Your task to perform on an android device: turn off notifications in google photos Image 0: 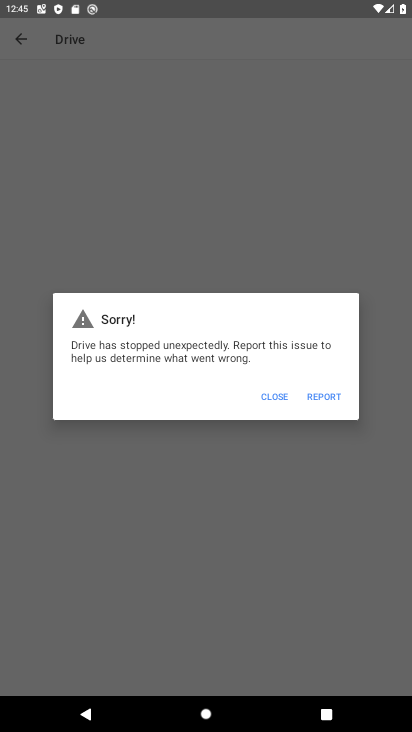
Step 0: press home button
Your task to perform on an android device: turn off notifications in google photos Image 1: 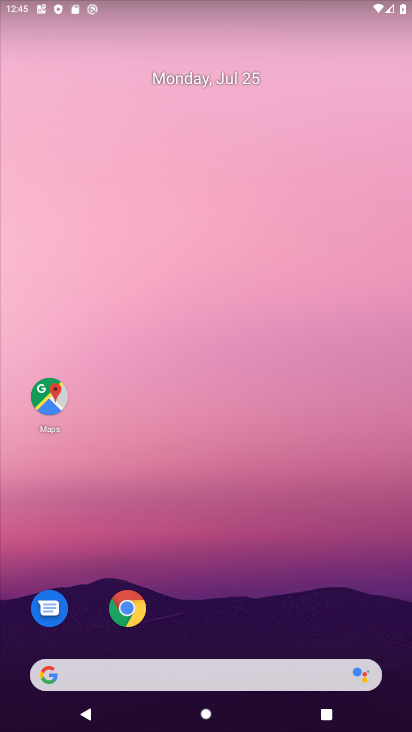
Step 1: drag from (285, 628) to (250, 21)
Your task to perform on an android device: turn off notifications in google photos Image 2: 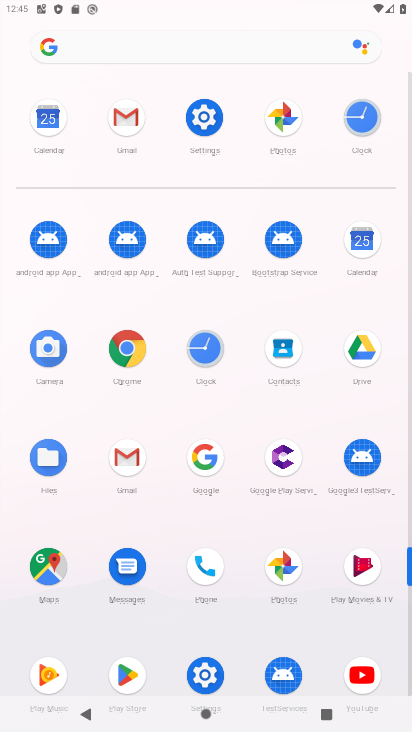
Step 2: click (283, 138)
Your task to perform on an android device: turn off notifications in google photos Image 3: 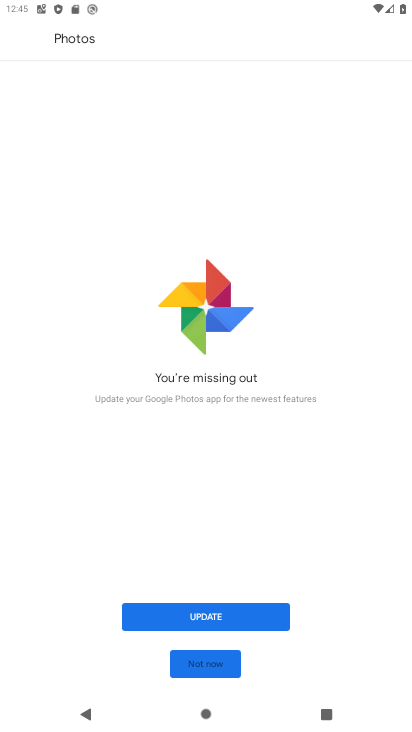
Step 3: click (209, 662)
Your task to perform on an android device: turn off notifications in google photos Image 4: 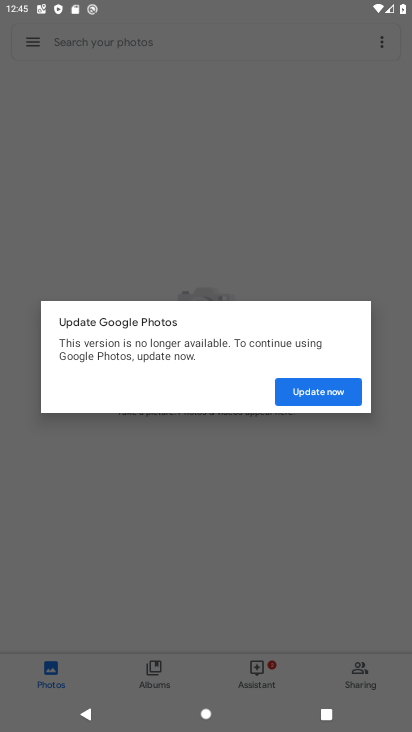
Step 4: click (296, 383)
Your task to perform on an android device: turn off notifications in google photos Image 5: 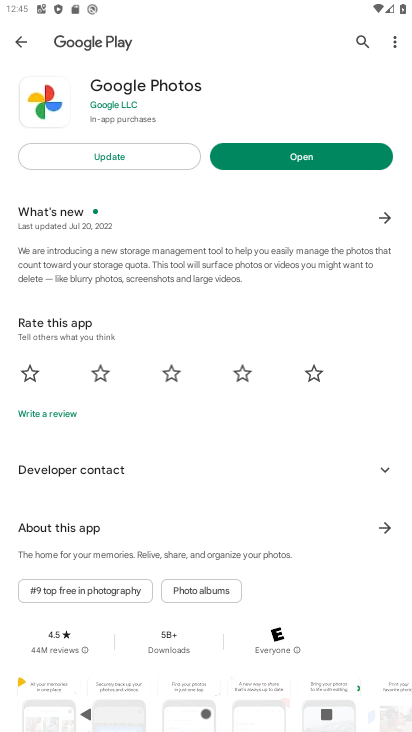
Step 5: click (280, 164)
Your task to perform on an android device: turn off notifications in google photos Image 6: 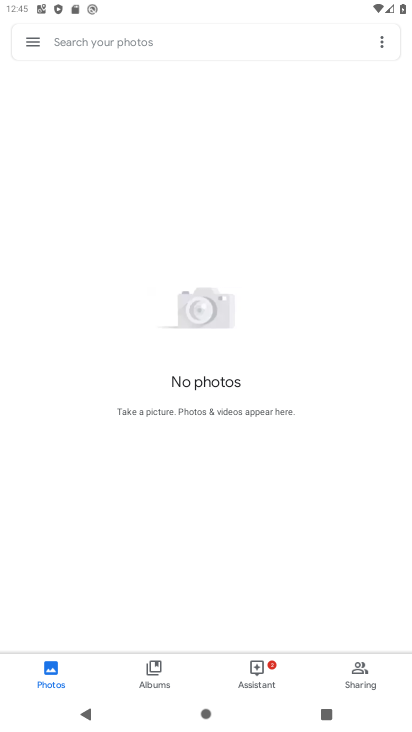
Step 6: click (32, 51)
Your task to perform on an android device: turn off notifications in google photos Image 7: 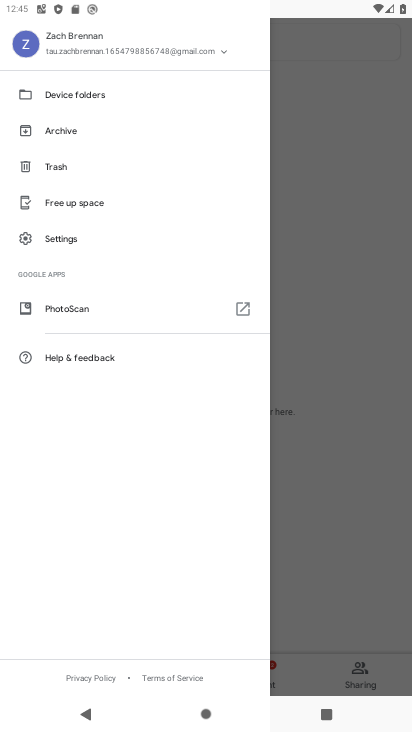
Step 7: click (61, 241)
Your task to perform on an android device: turn off notifications in google photos Image 8: 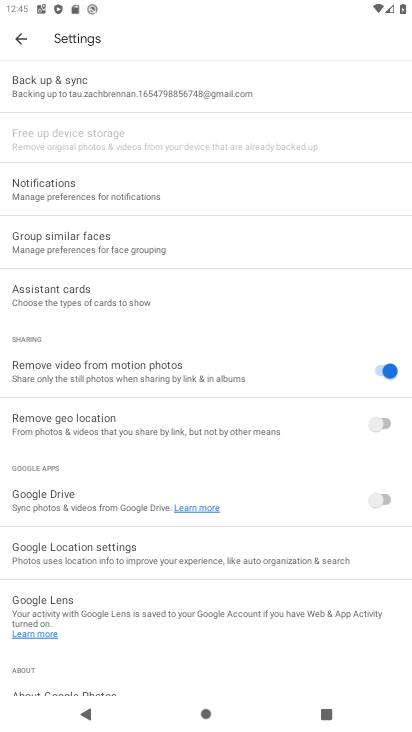
Step 8: click (73, 192)
Your task to perform on an android device: turn off notifications in google photos Image 9: 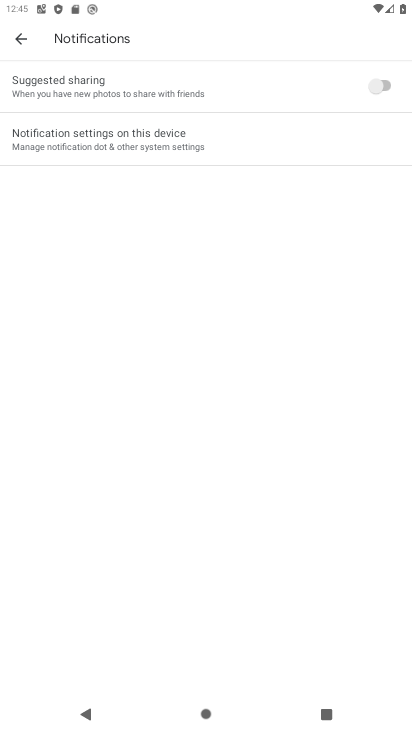
Step 9: click (122, 149)
Your task to perform on an android device: turn off notifications in google photos Image 10: 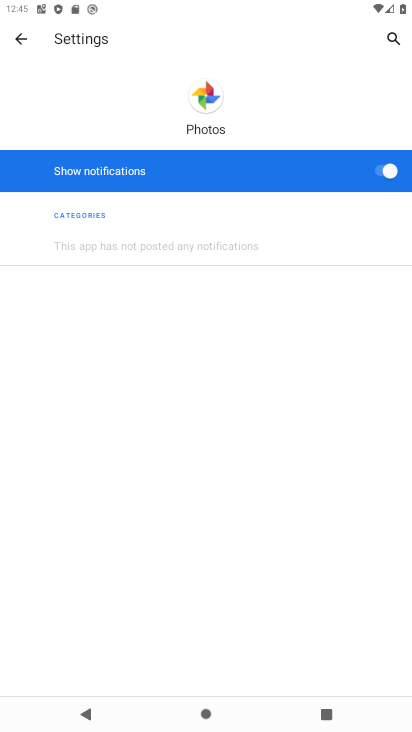
Step 10: click (400, 176)
Your task to perform on an android device: turn off notifications in google photos Image 11: 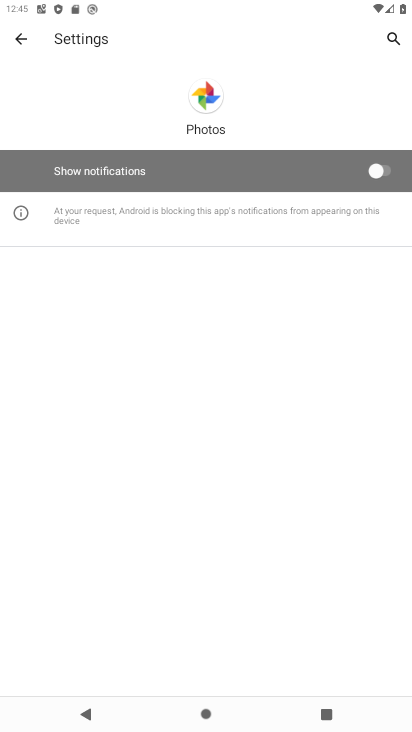
Step 11: task complete